Your task to perform on an android device: Is it going to rain this weekend? Image 0: 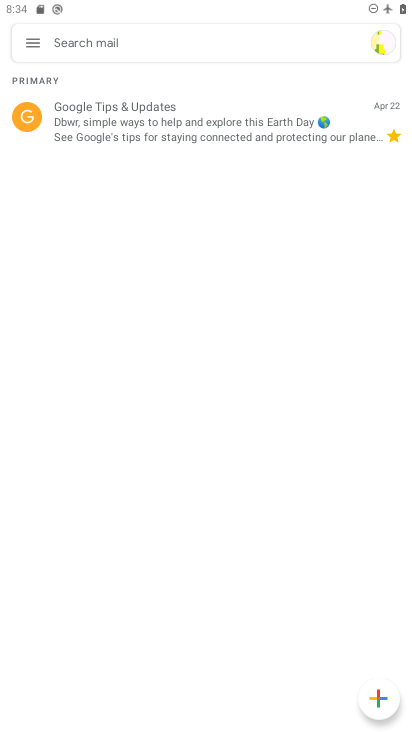
Step 0: press home button
Your task to perform on an android device: Is it going to rain this weekend? Image 1: 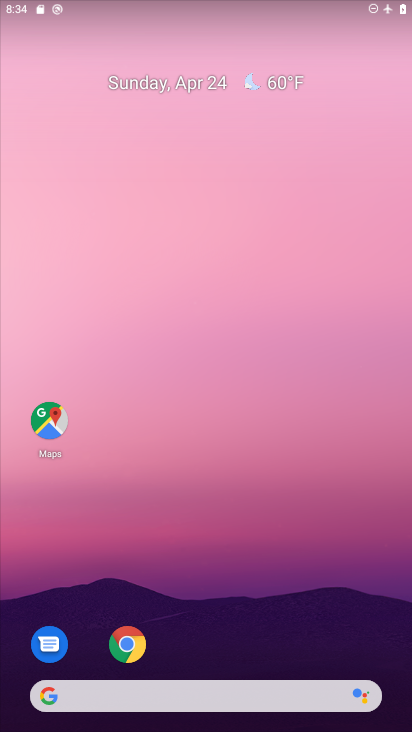
Step 1: click (262, 80)
Your task to perform on an android device: Is it going to rain this weekend? Image 2: 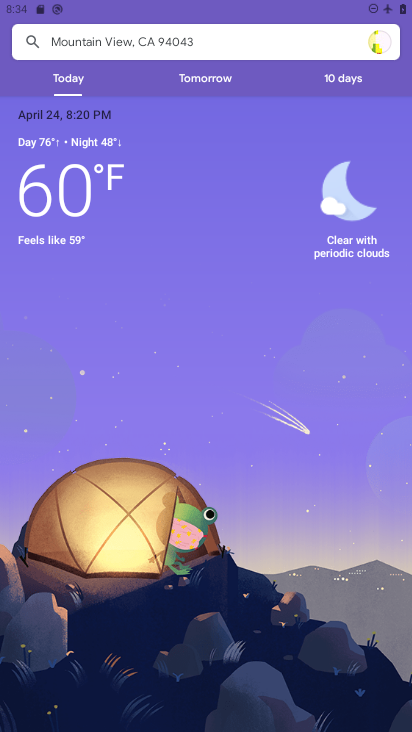
Step 2: click (338, 78)
Your task to perform on an android device: Is it going to rain this weekend? Image 3: 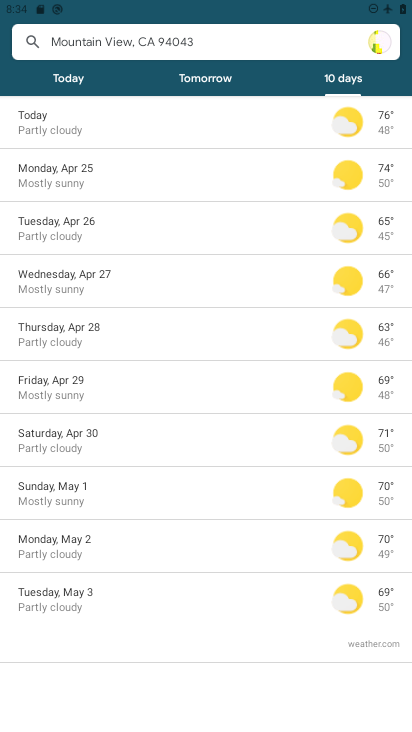
Step 3: task complete